Your task to perform on an android device: Open Chrome and go to settings Image 0: 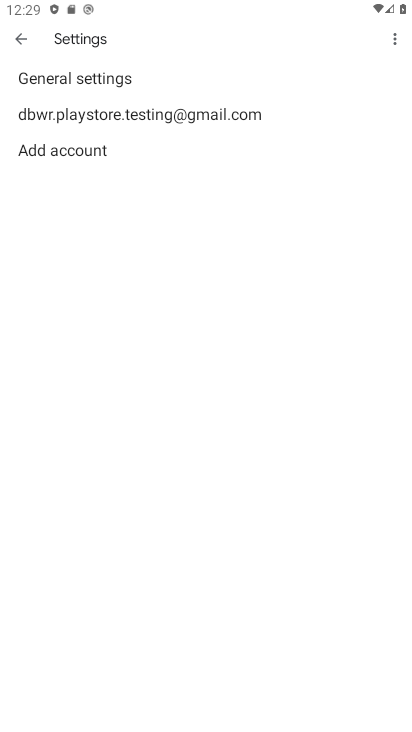
Step 0: press home button
Your task to perform on an android device: Open Chrome and go to settings Image 1: 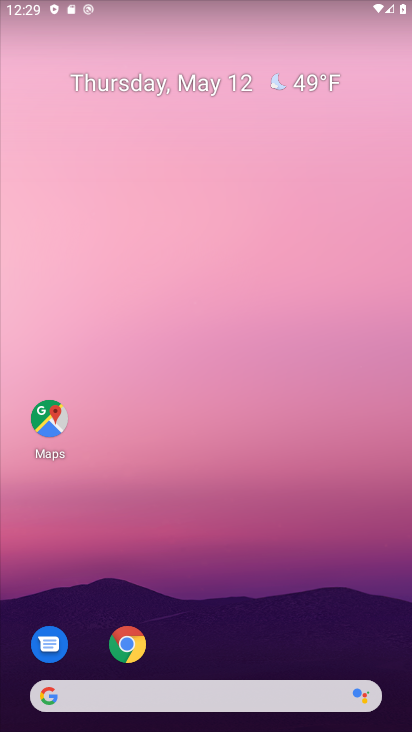
Step 1: click (131, 642)
Your task to perform on an android device: Open Chrome and go to settings Image 2: 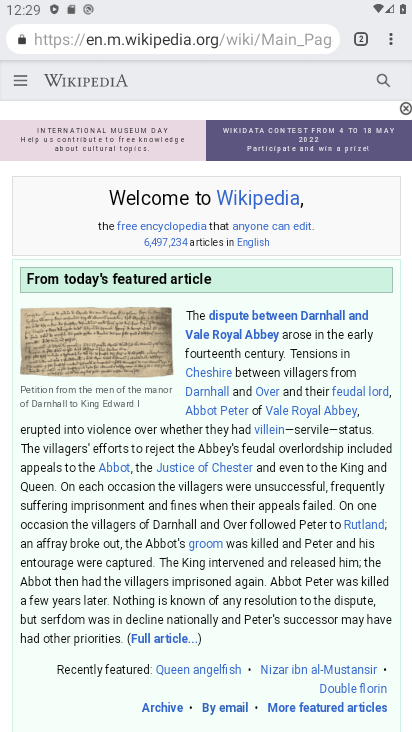
Step 2: click (385, 38)
Your task to perform on an android device: Open Chrome and go to settings Image 3: 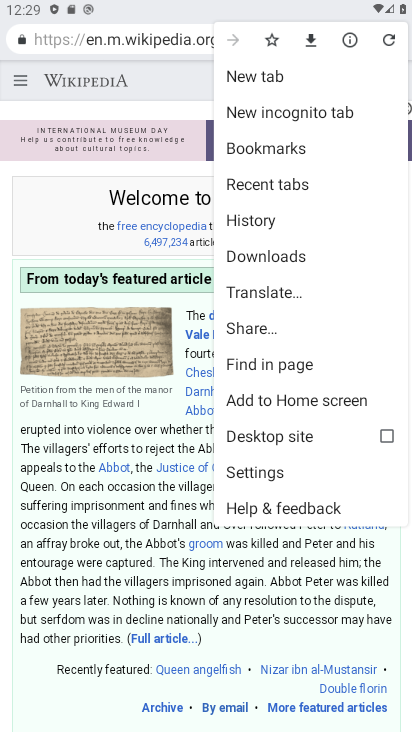
Step 3: click (275, 469)
Your task to perform on an android device: Open Chrome and go to settings Image 4: 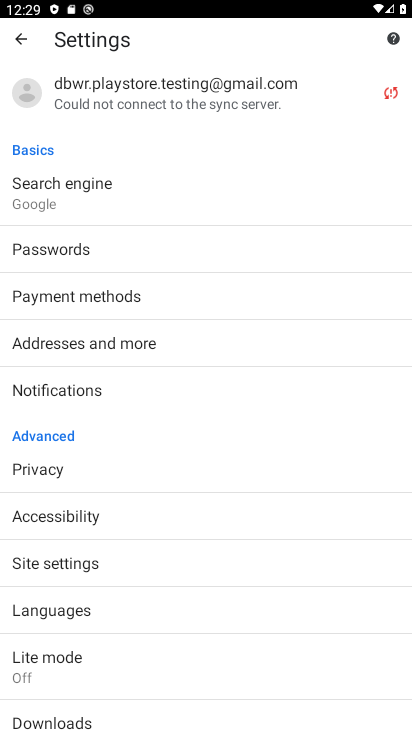
Step 4: task complete